Your task to perform on an android device: toggle improve location accuracy Image 0: 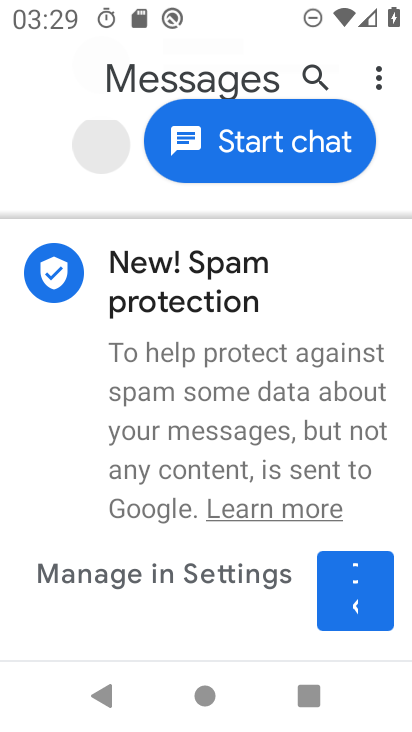
Step 0: press home button
Your task to perform on an android device: toggle improve location accuracy Image 1: 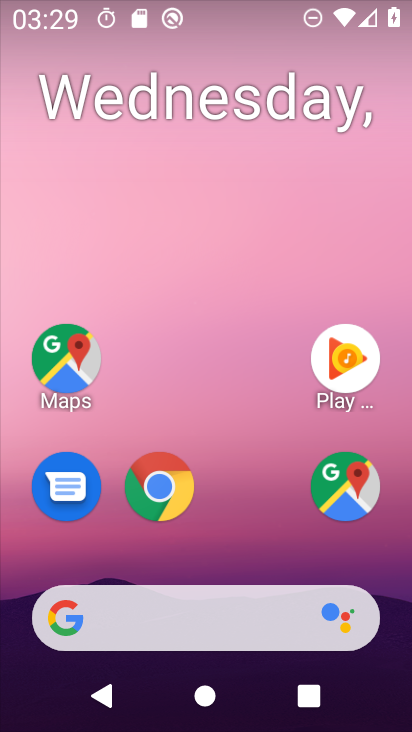
Step 1: drag from (264, 519) to (248, 156)
Your task to perform on an android device: toggle improve location accuracy Image 2: 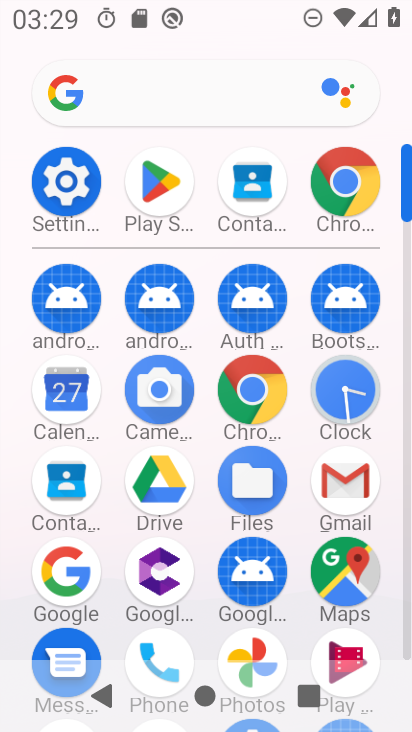
Step 2: click (73, 188)
Your task to perform on an android device: toggle improve location accuracy Image 3: 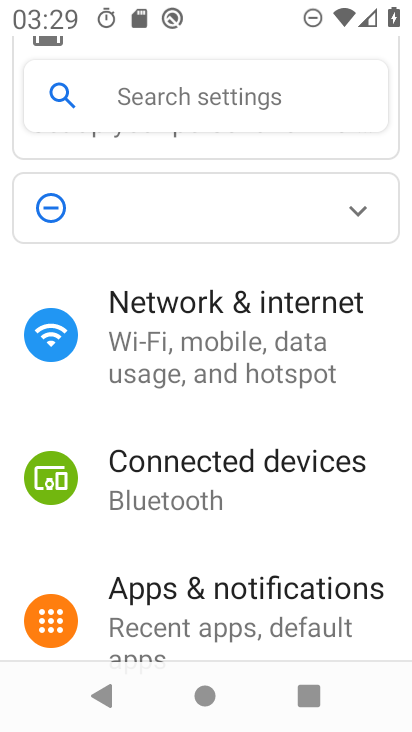
Step 3: drag from (376, 425) to (374, 347)
Your task to perform on an android device: toggle improve location accuracy Image 4: 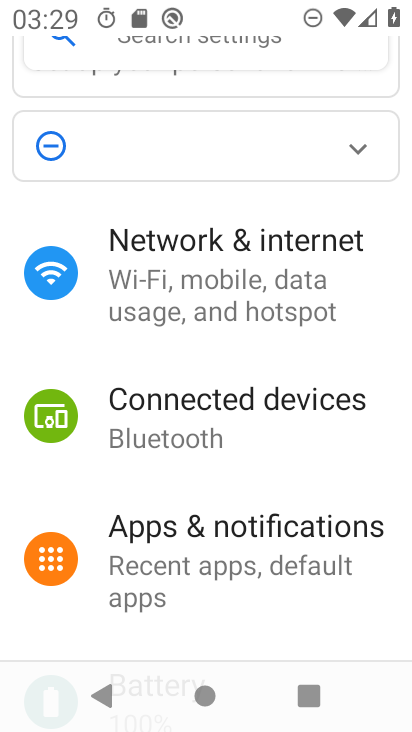
Step 4: drag from (358, 446) to (375, 351)
Your task to perform on an android device: toggle improve location accuracy Image 5: 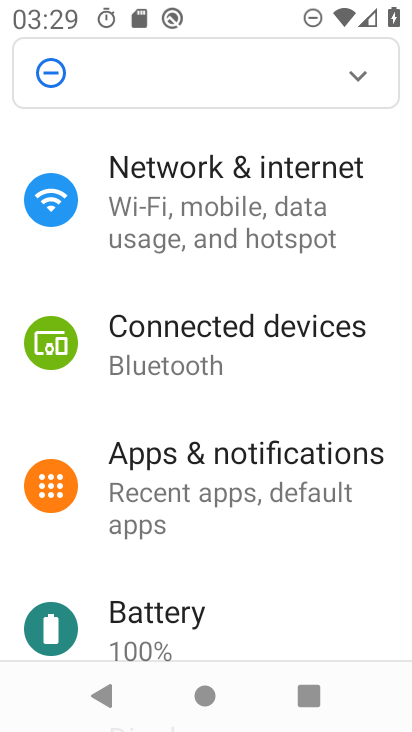
Step 5: drag from (379, 514) to (375, 409)
Your task to perform on an android device: toggle improve location accuracy Image 6: 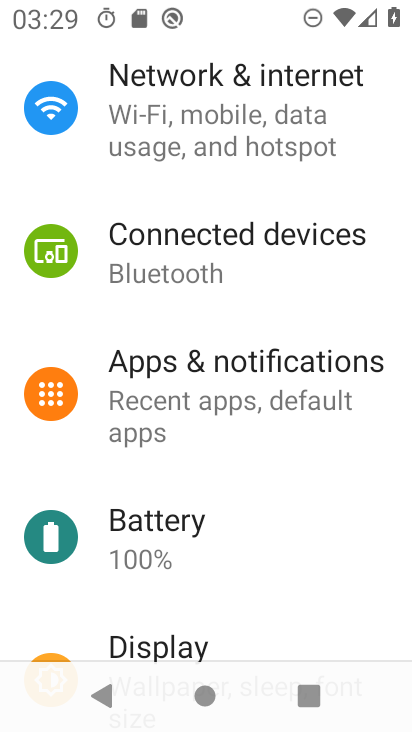
Step 6: drag from (342, 556) to (349, 432)
Your task to perform on an android device: toggle improve location accuracy Image 7: 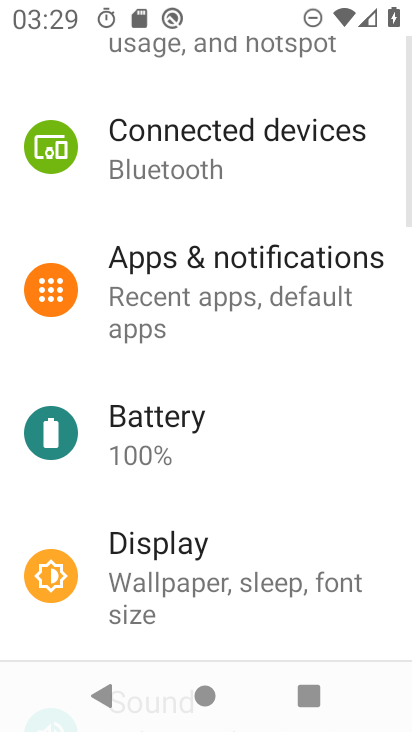
Step 7: drag from (351, 607) to (363, 469)
Your task to perform on an android device: toggle improve location accuracy Image 8: 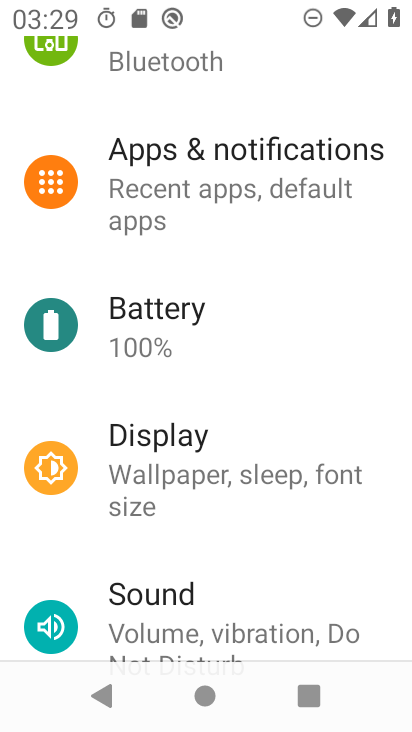
Step 8: drag from (350, 572) to (364, 417)
Your task to perform on an android device: toggle improve location accuracy Image 9: 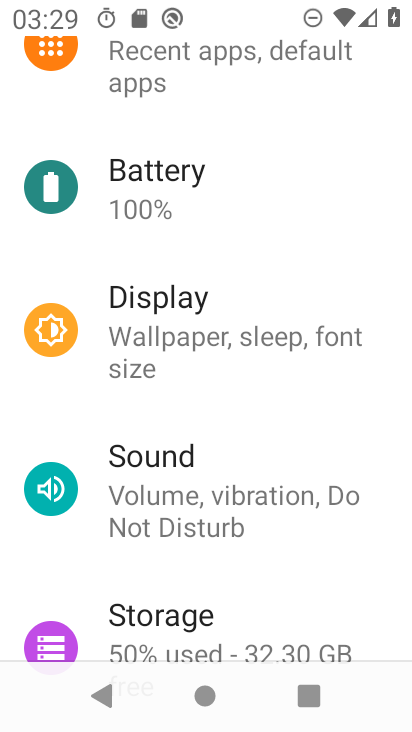
Step 9: drag from (340, 585) to (336, 441)
Your task to perform on an android device: toggle improve location accuracy Image 10: 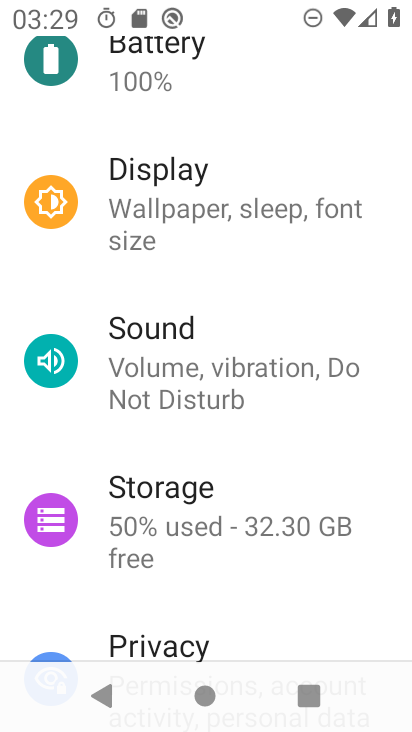
Step 10: drag from (317, 599) to (316, 446)
Your task to perform on an android device: toggle improve location accuracy Image 11: 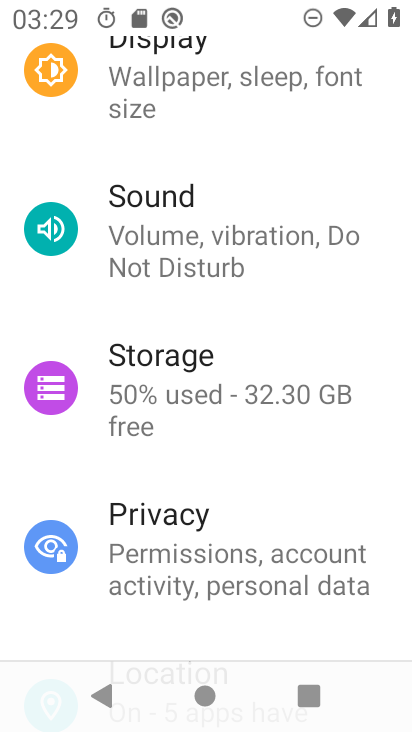
Step 11: drag from (310, 610) to (321, 446)
Your task to perform on an android device: toggle improve location accuracy Image 12: 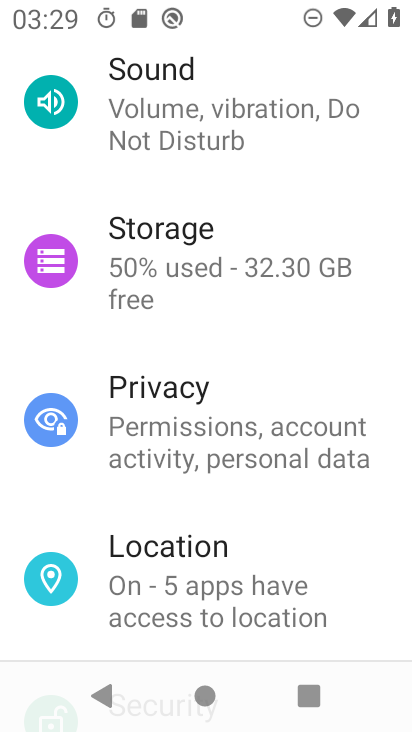
Step 12: click (299, 567)
Your task to perform on an android device: toggle improve location accuracy Image 13: 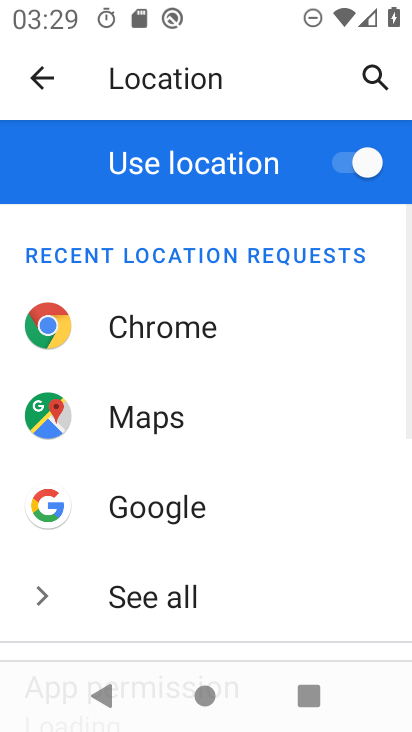
Step 13: drag from (299, 597) to (303, 484)
Your task to perform on an android device: toggle improve location accuracy Image 14: 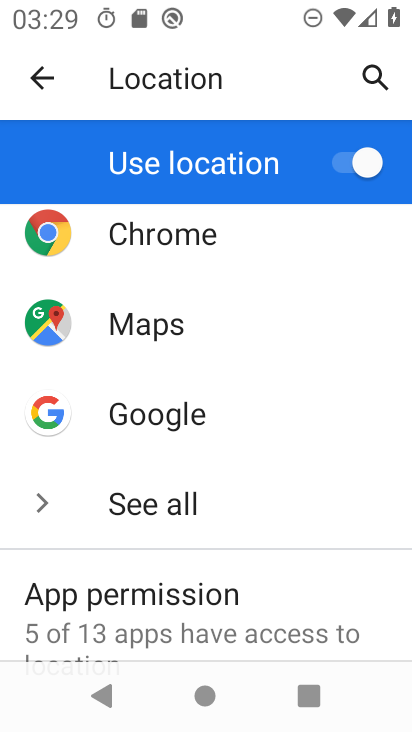
Step 14: drag from (311, 604) to (321, 475)
Your task to perform on an android device: toggle improve location accuracy Image 15: 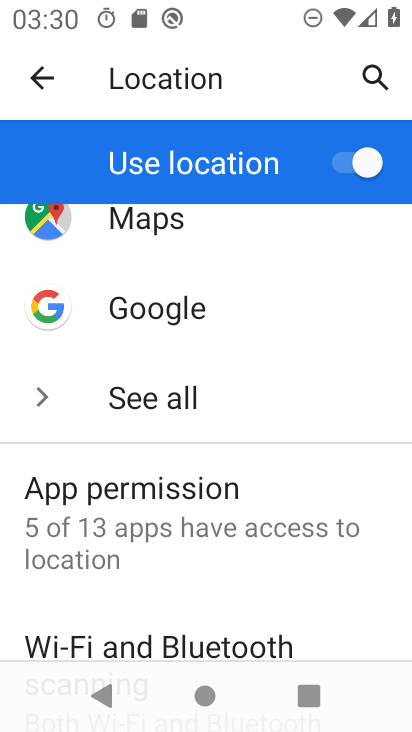
Step 15: drag from (325, 604) to (332, 478)
Your task to perform on an android device: toggle improve location accuracy Image 16: 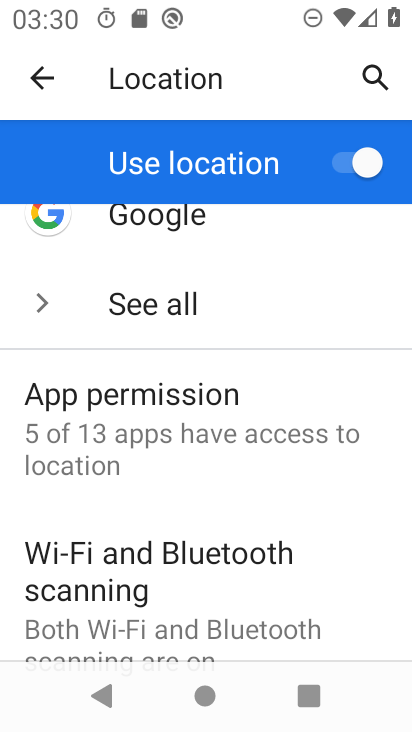
Step 16: drag from (332, 590) to (348, 452)
Your task to perform on an android device: toggle improve location accuracy Image 17: 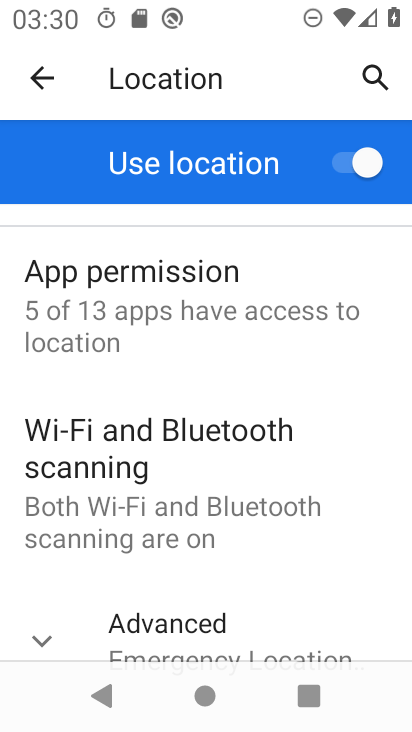
Step 17: drag from (290, 589) to (301, 459)
Your task to perform on an android device: toggle improve location accuracy Image 18: 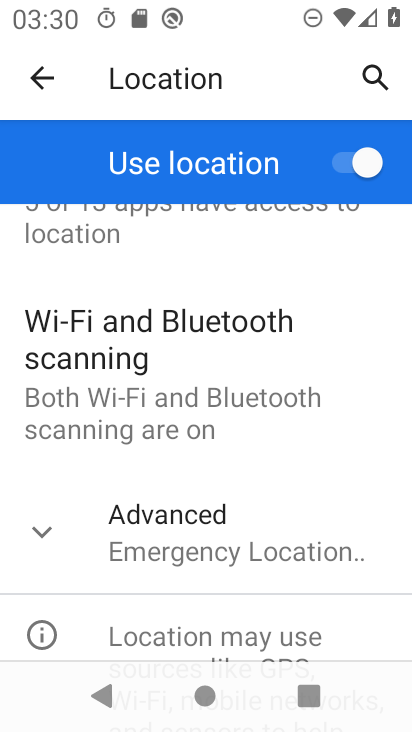
Step 18: click (292, 532)
Your task to perform on an android device: toggle improve location accuracy Image 19: 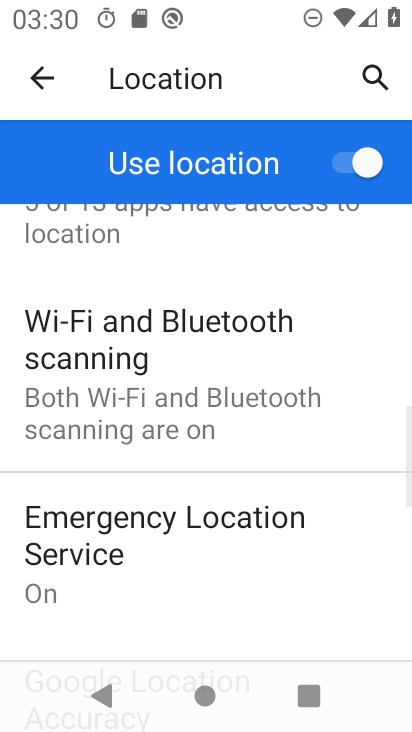
Step 19: drag from (327, 603) to (335, 472)
Your task to perform on an android device: toggle improve location accuracy Image 20: 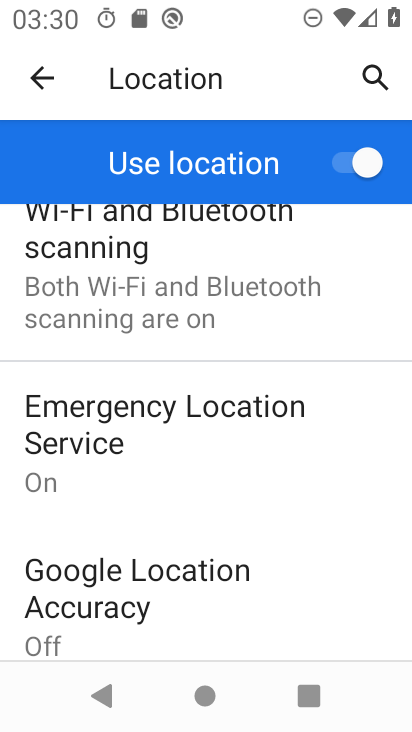
Step 20: drag from (330, 599) to (331, 472)
Your task to perform on an android device: toggle improve location accuracy Image 21: 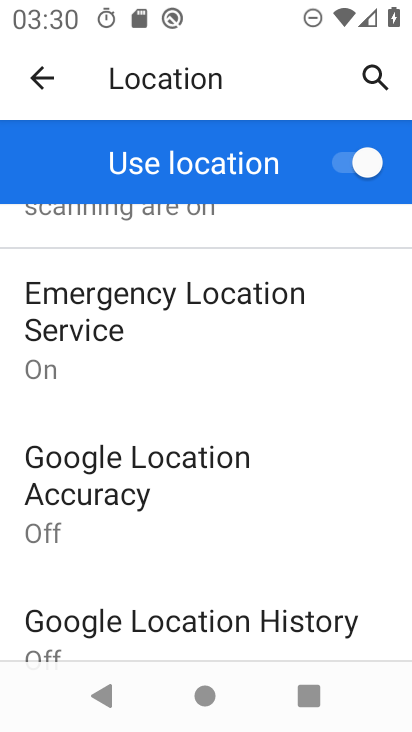
Step 21: click (263, 497)
Your task to perform on an android device: toggle improve location accuracy Image 22: 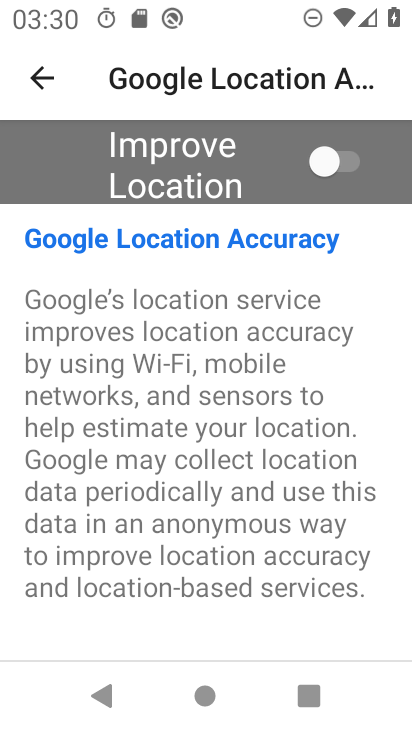
Step 22: click (320, 175)
Your task to perform on an android device: toggle improve location accuracy Image 23: 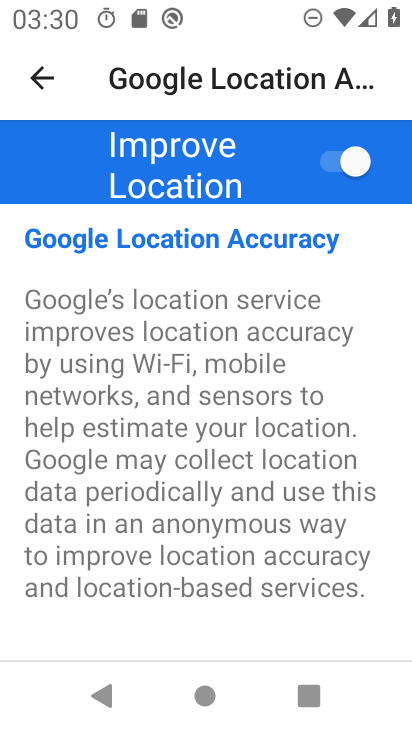
Step 23: task complete